Your task to perform on an android device: find which apps use the phone's location Image 0: 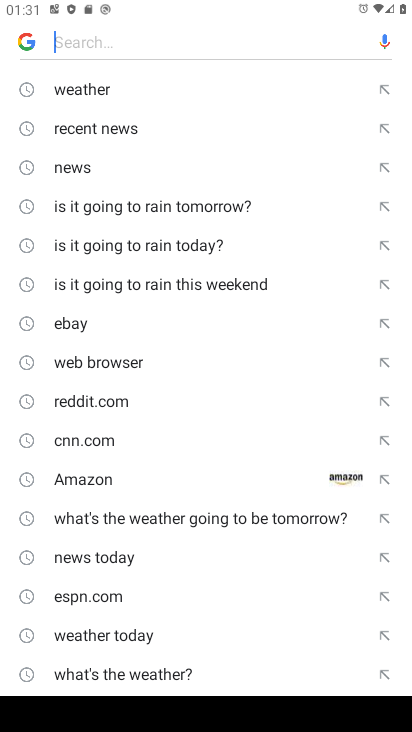
Step 0: press home button
Your task to perform on an android device: find which apps use the phone's location Image 1: 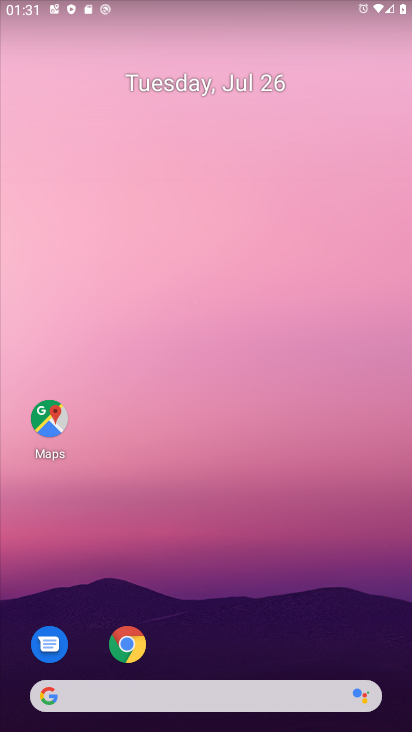
Step 1: drag from (238, 660) to (229, 252)
Your task to perform on an android device: find which apps use the phone's location Image 2: 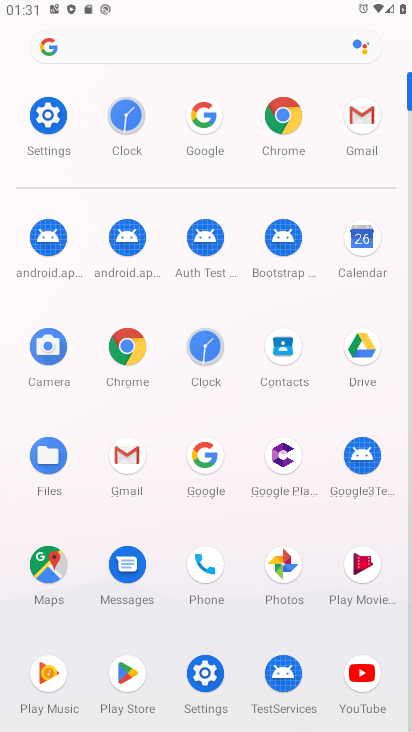
Step 2: click (41, 113)
Your task to perform on an android device: find which apps use the phone's location Image 3: 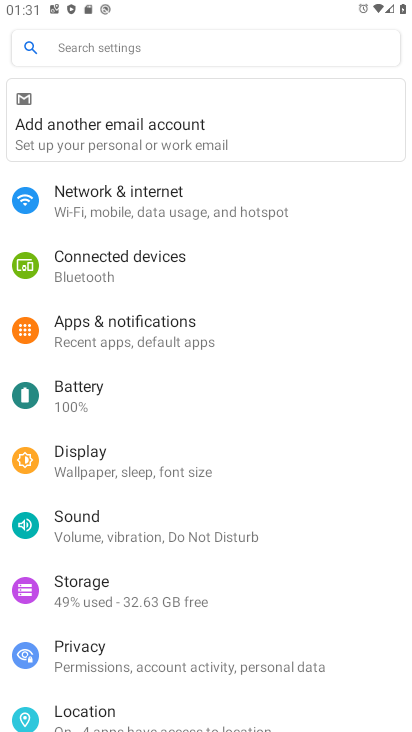
Step 3: click (90, 703)
Your task to perform on an android device: find which apps use the phone's location Image 4: 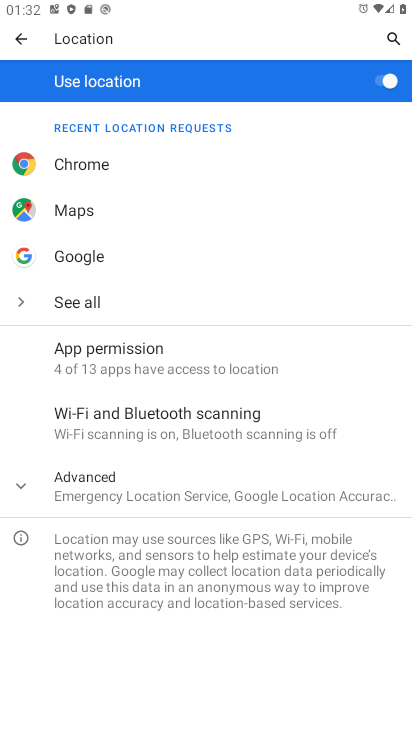
Step 4: task complete